Your task to perform on an android device: Open sound settings Image 0: 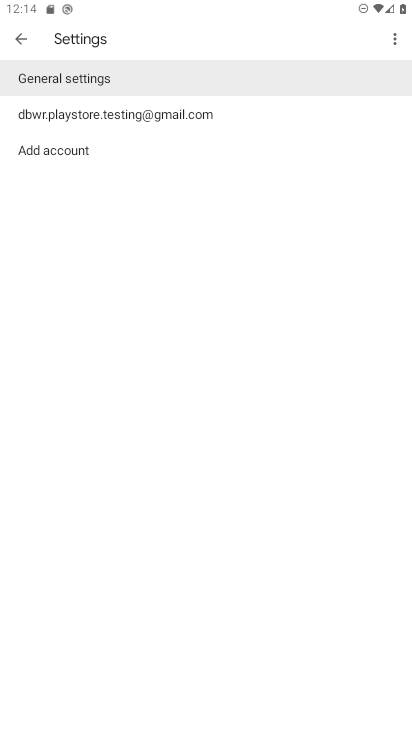
Step 0: click (116, 116)
Your task to perform on an android device: Open sound settings Image 1: 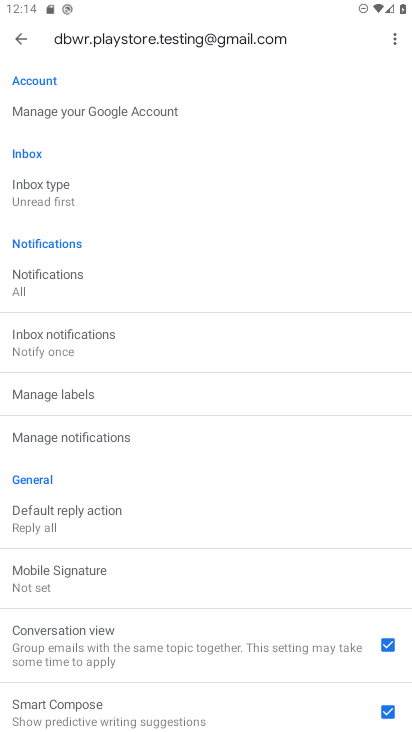
Step 1: press home button
Your task to perform on an android device: Open sound settings Image 2: 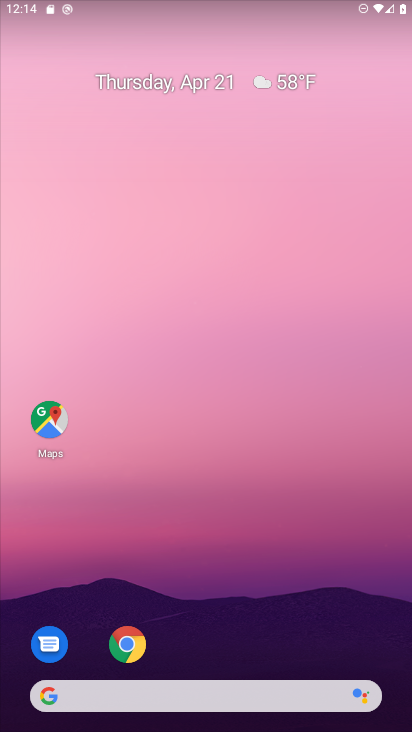
Step 2: drag from (188, 641) to (169, 263)
Your task to perform on an android device: Open sound settings Image 3: 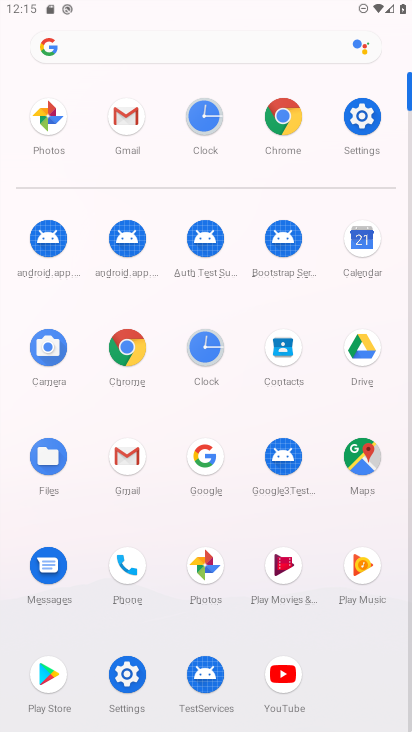
Step 3: click (353, 126)
Your task to perform on an android device: Open sound settings Image 4: 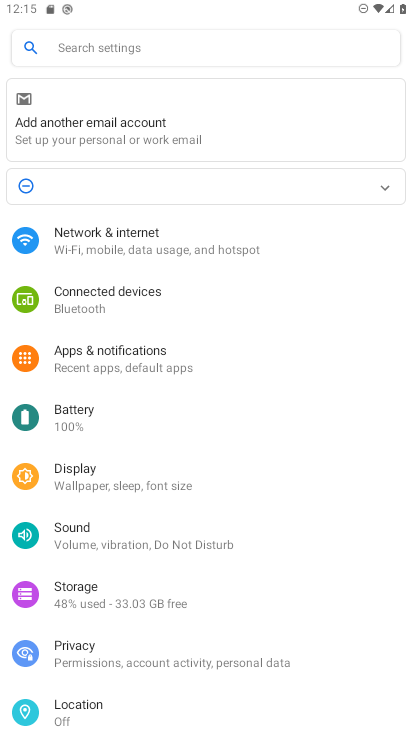
Step 4: click (116, 538)
Your task to perform on an android device: Open sound settings Image 5: 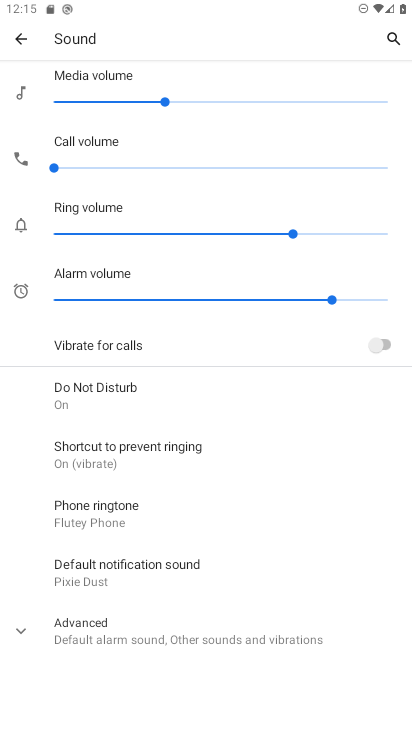
Step 5: task complete